Your task to perform on an android device: Open Google Maps and go to "Timeline" Image 0: 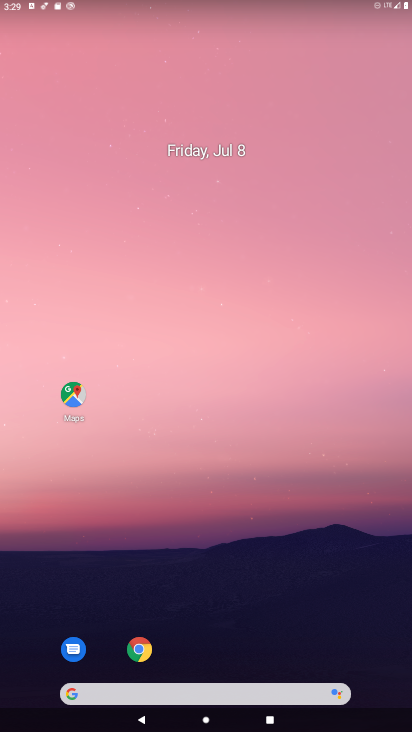
Step 0: click (73, 395)
Your task to perform on an android device: Open Google Maps and go to "Timeline" Image 1: 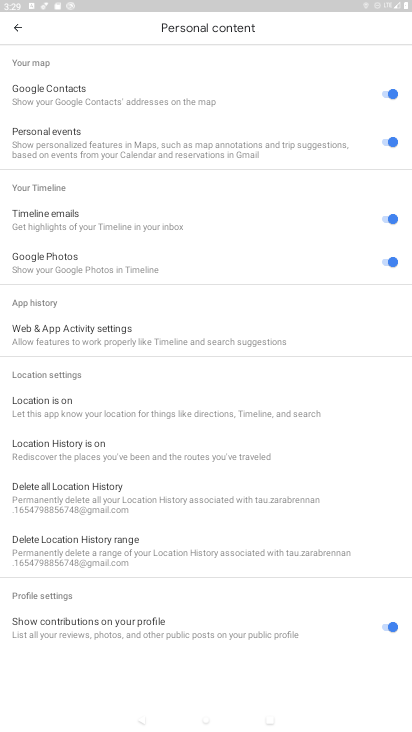
Step 1: press back button
Your task to perform on an android device: Open Google Maps and go to "Timeline" Image 2: 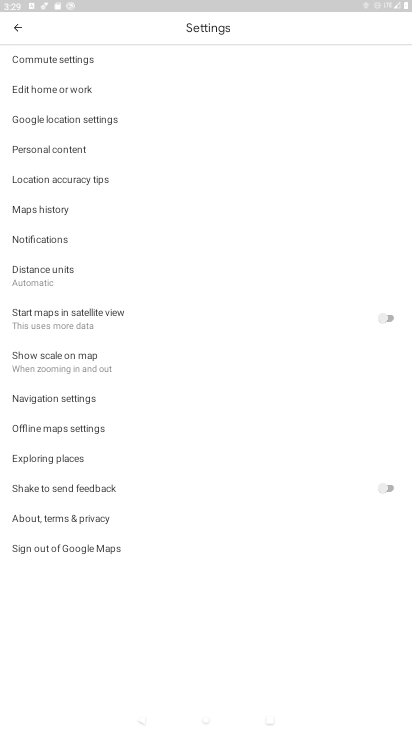
Step 2: press back button
Your task to perform on an android device: Open Google Maps and go to "Timeline" Image 3: 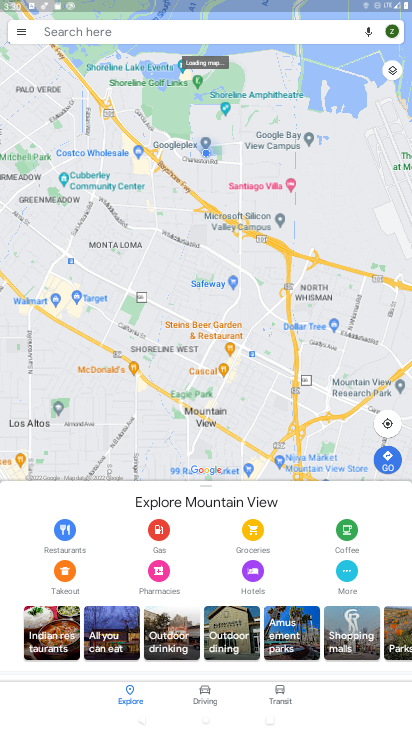
Step 3: click (19, 32)
Your task to perform on an android device: Open Google Maps and go to "Timeline" Image 4: 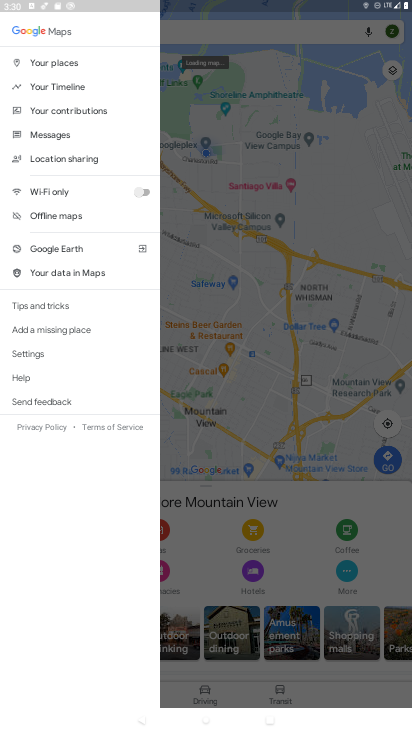
Step 4: click (55, 87)
Your task to perform on an android device: Open Google Maps and go to "Timeline" Image 5: 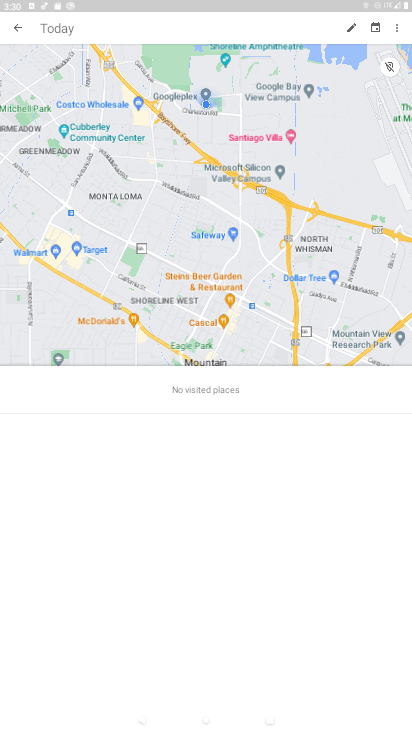
Step 5: task complete